Your task to perform on an android device: Go to privacy settings Image 0: 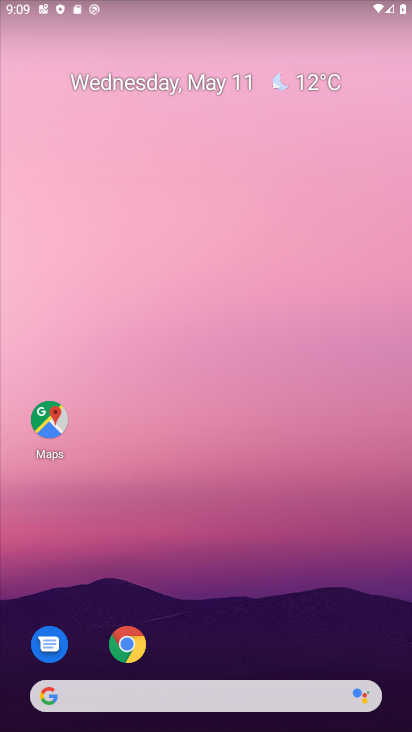
Step 0: drag from (264, 633) to (180, 237)
Your task to perform on an android device: Go to privacy settings Image 1: 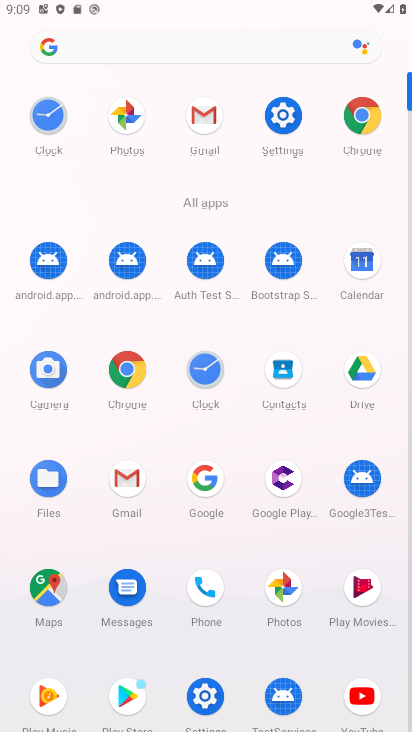
Step 1: click (284, 118)
Your task to perform on an android device: Go to privacy settings Image 2: 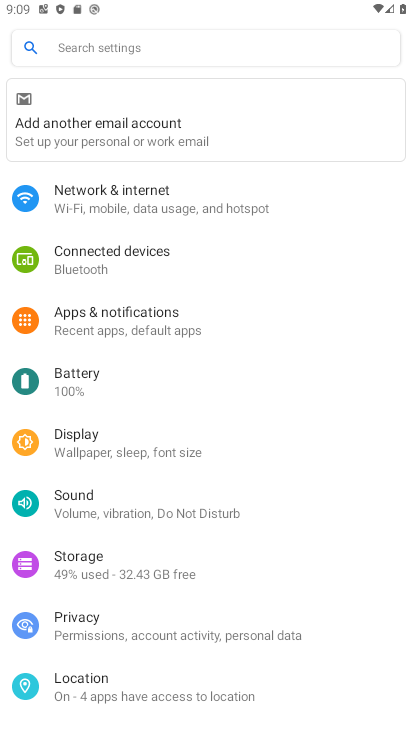
Step 2: click (197, 51)
Your task to perform on an android device: Go to privacy settings Image 3: 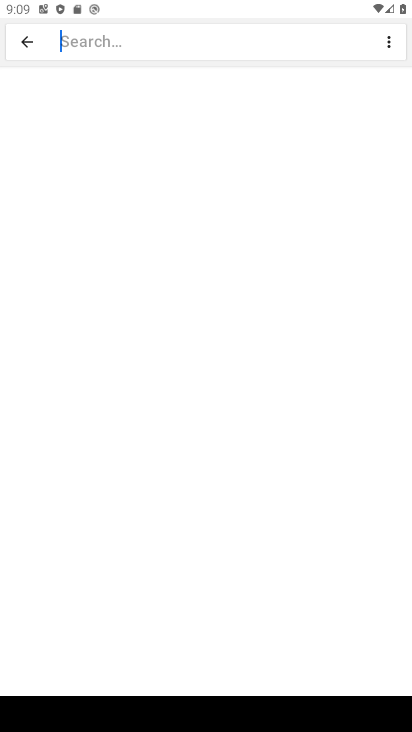
Step 3: type "privacy"
Your task to perform on an android device: Go to privacy settings Image 4: 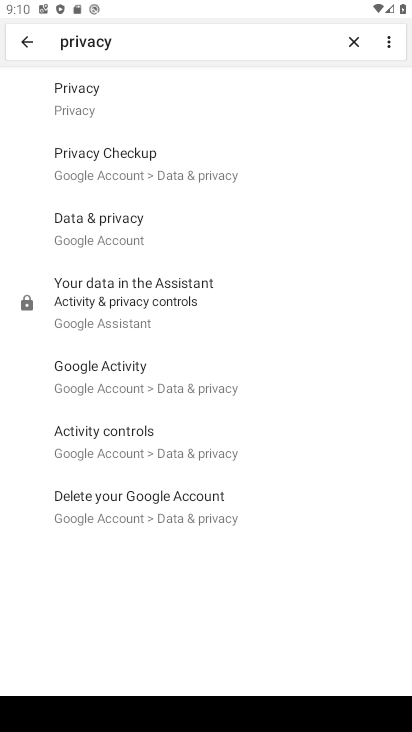
Step 4: click (63, 100)
Your task to perform on an android device: Go to privacy settings Image 5: 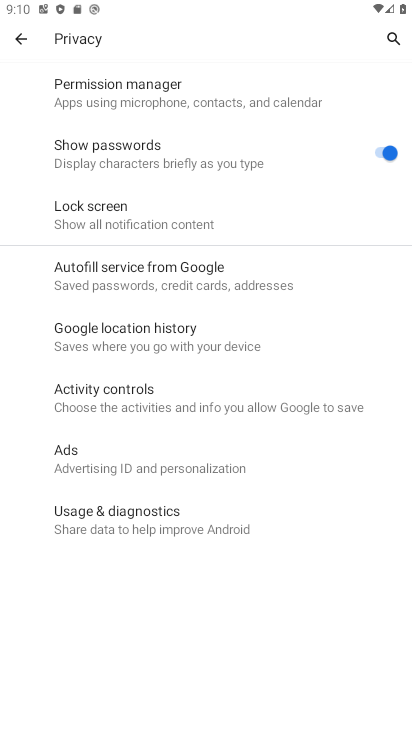
Step 5: task complete